Your task to perform on an android device: Go to calendar. Show me events next week Image 0: 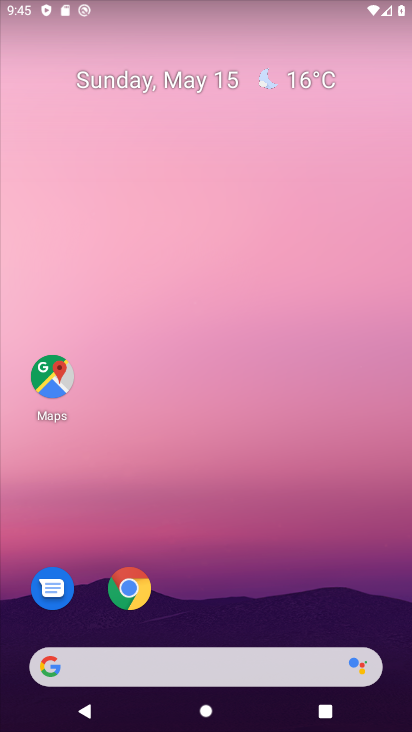
Step 0: drag from (167, 292) to (193, 26)
Your task to perform on an android device: Go to calendar. Show me events next week Image 1: 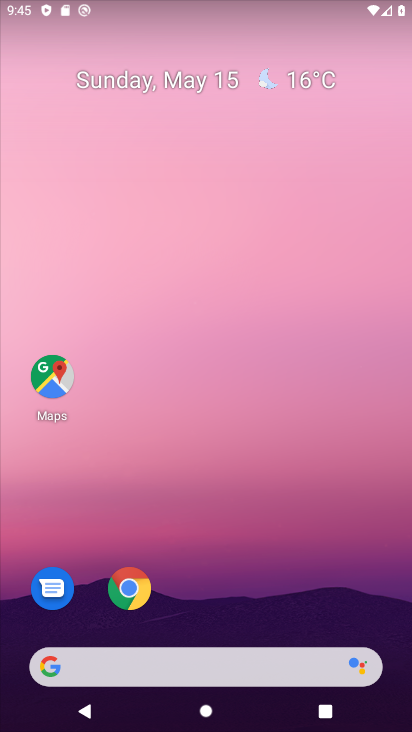
Step 1: drag from (201, 520) to (247, 59)
Your task to perform on an android device: Go to calendar. Show me events next week Image 2: 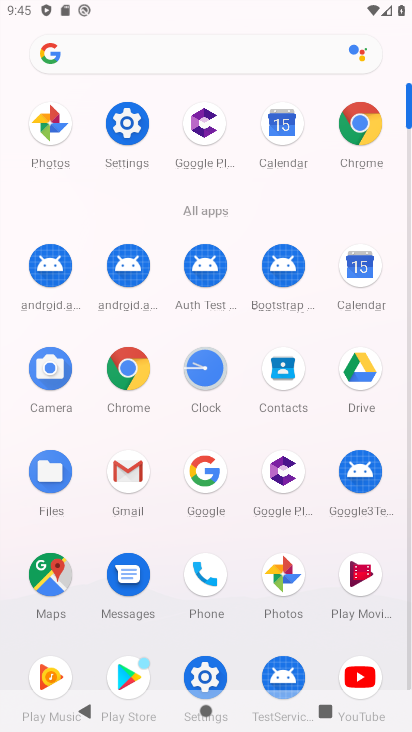
Step 2: click (343, 277)
Your task to perform on an android device: Go to calendar. Show me events next week Image 3: 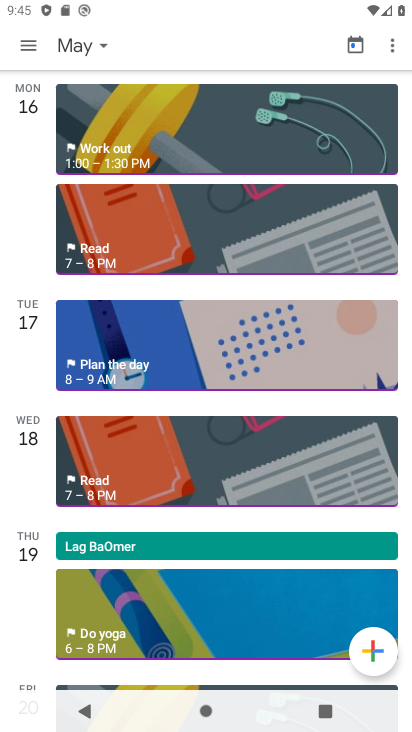
Step 3: click (73, 48)
Your task to perform on an android device: Go to calendar. Show me events next week Image 4: 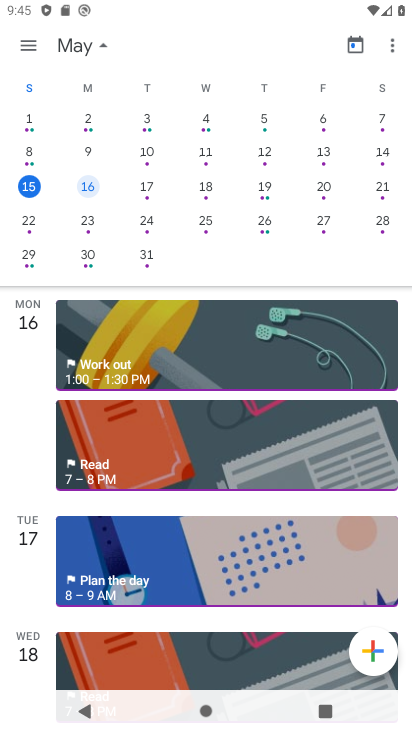
Step 4: click (79, 221)
Your task to perform on an android device: Go to calendar. Show me events next week Image 5: 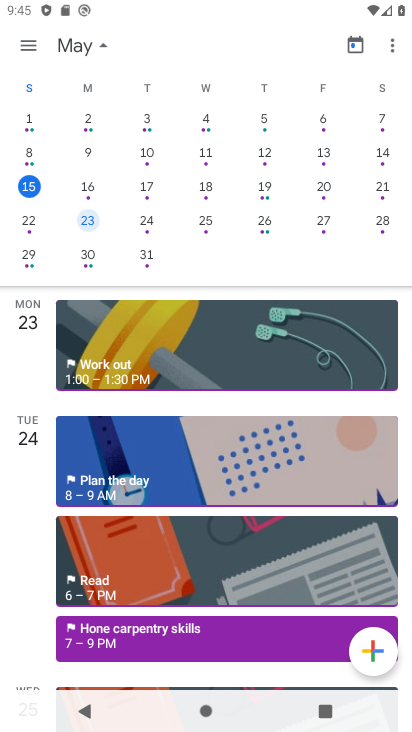
Step 5: click (29, 48)
Your task to perform on an android device: Go to calendar. Show me events next week Image 6: 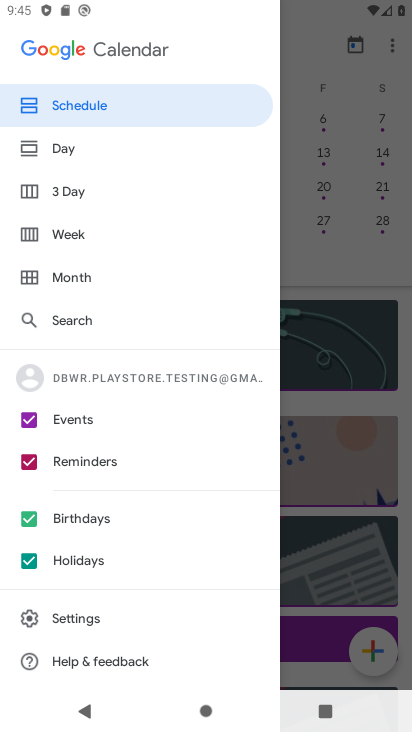
Step 6: click (86, 235)
Your task to perform on an android device: Go to calendar. Show me events next week Image 7: 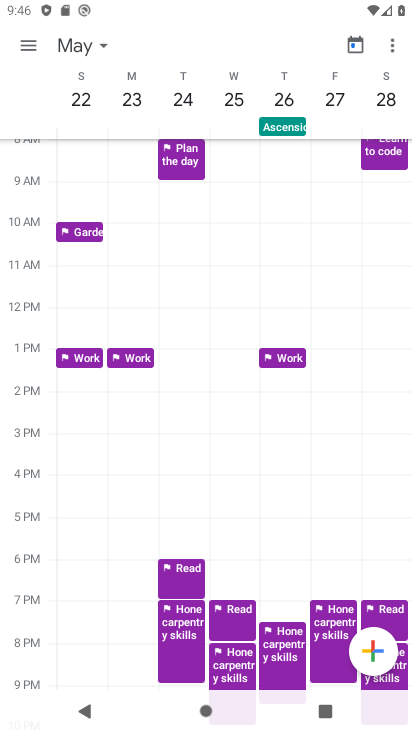
Step 7: task complete